Your task to perform on an android device: Open the web browser Image 0: 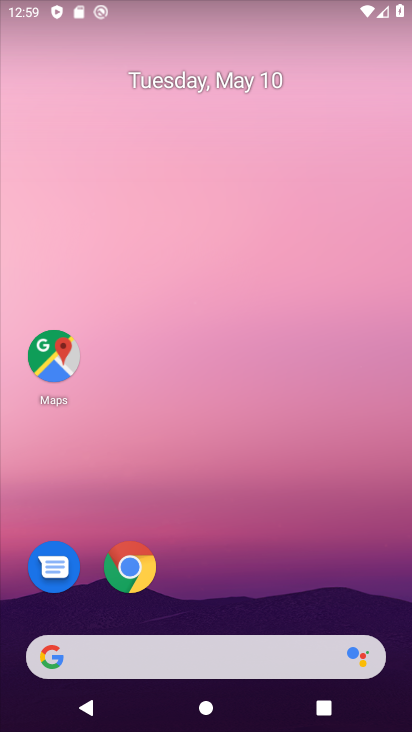
Step 0: click (135, 564)
Your task to perform on an android device: Open the web browser Image 1: 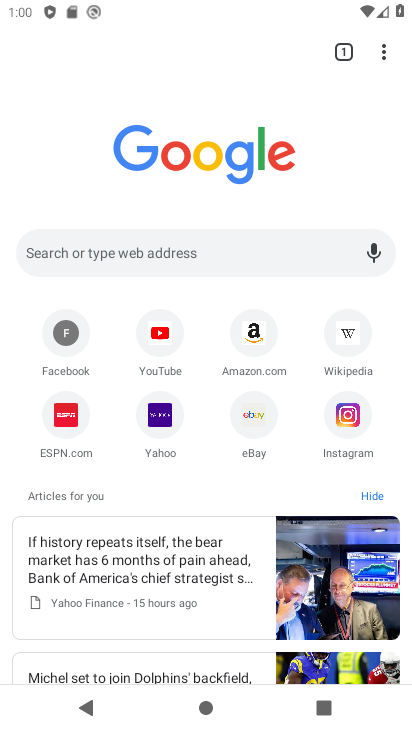
Step 1: task complete